Your task to perform on an android device: open sync settings in chrome Image 0: 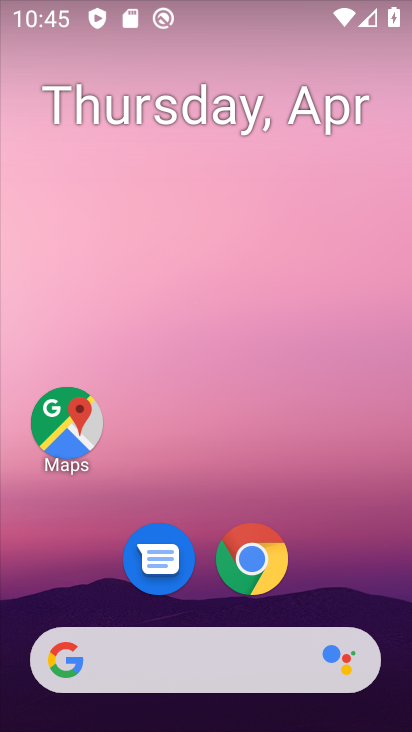
Step 0: drag from (269, 679) to (225, 168)
Your task to perform on an android device: open sync settings in chrome Image 1: 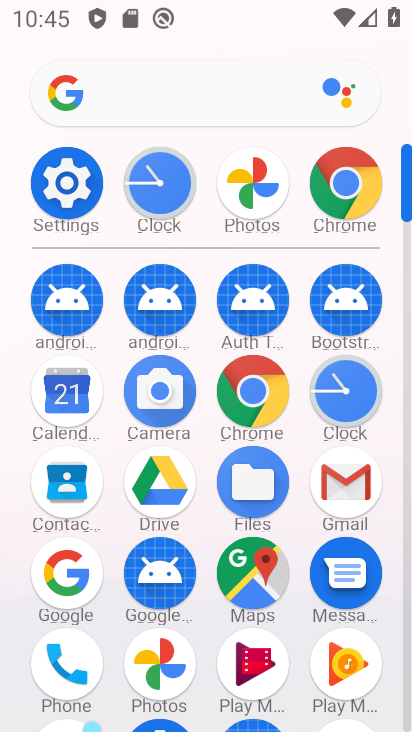
Step 1: click (346, 171)
Your task to perform on an android device: open sync settings in chrome Image 2: 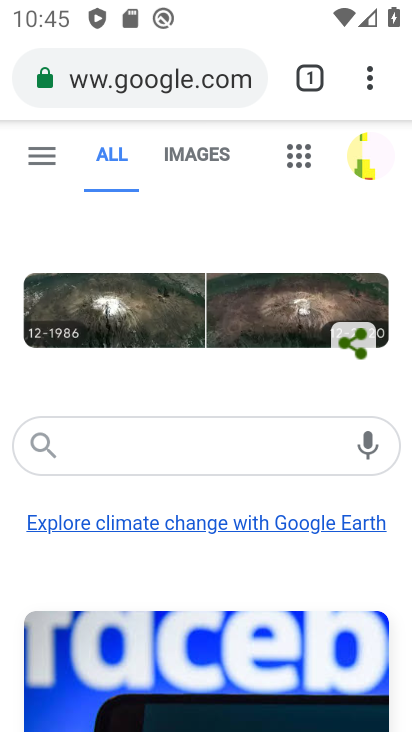
Step 2: click (362, 89)
Your task to perform on an android device: open sync settings in chrome Image 3: 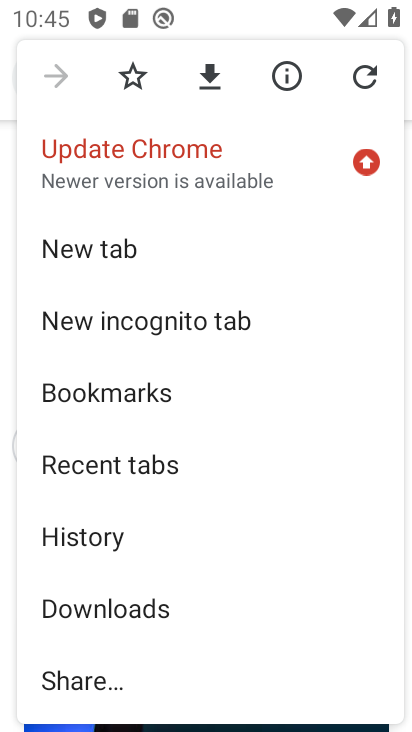
Step 3: drag from (51, 680) to (146, 302)
Your task to perform on an android device: open sync settings in chrome Image 4: 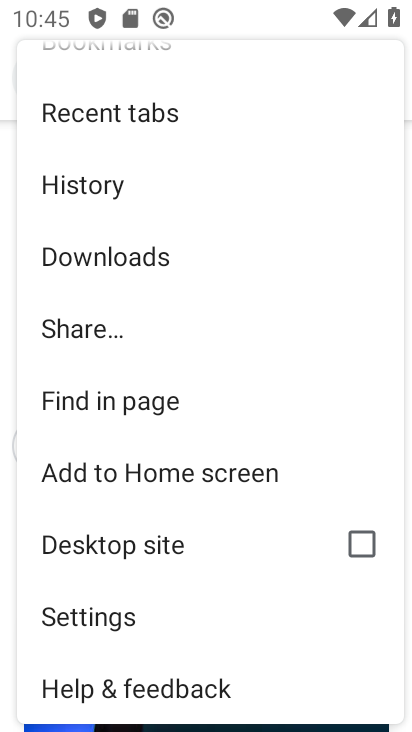
Step 4: click (124, 622)
Your task to perform on an android device: open sync settings in chrome Image 5: 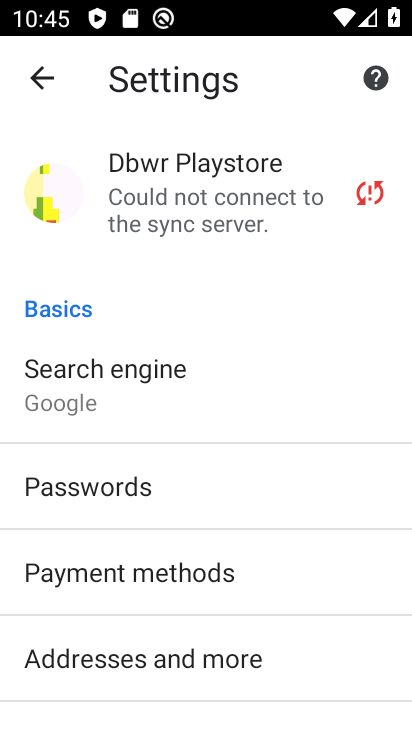
Step 5: drag from (182, 644) to (209, 296)
Your task to perform on an android device: open sync settings in chrome Image 6: 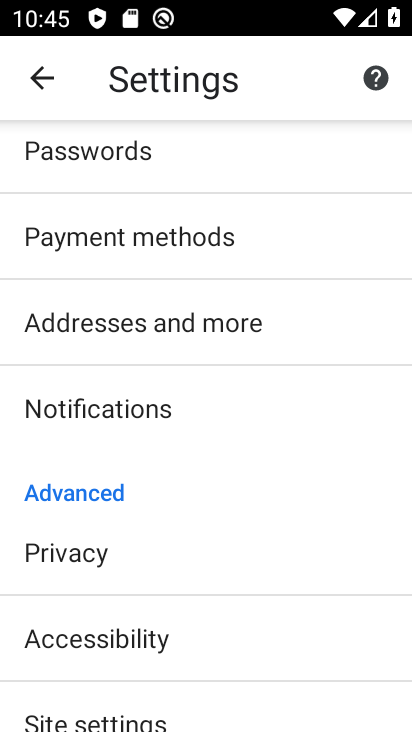
Step 6: drag from (145, 666) to (188, 441)
Your task to perform on an android device: open sync settings in chrome Image 7: 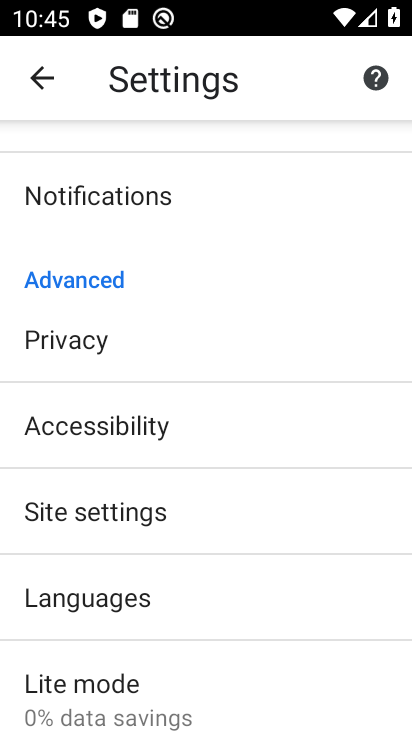
Step 7: click (90, 515)
Your task to perform on an android device: open sync settings in chrome Image 8: 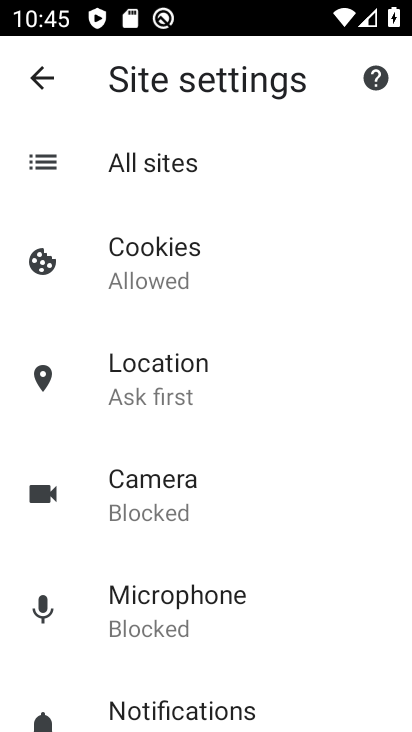
Step 8: drag from (166, 542) to (286, 193)
Your task to perform on an android device: open sync settings in chrome Image 9: 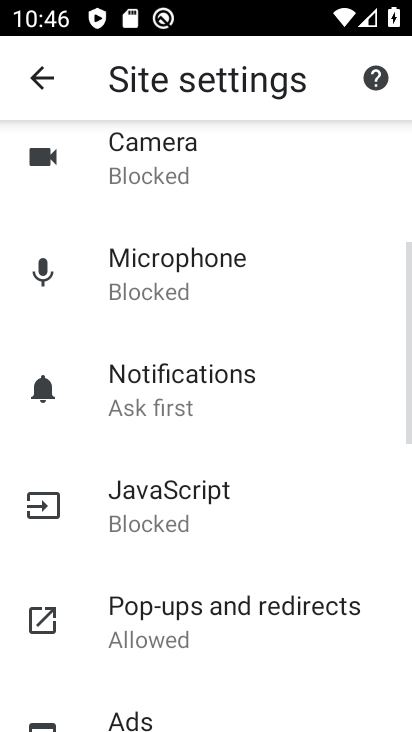
Step 9: drag from (249, 576) to (333, 231)
Your task to perform on an android device: open sync settings in chrome Image 10: 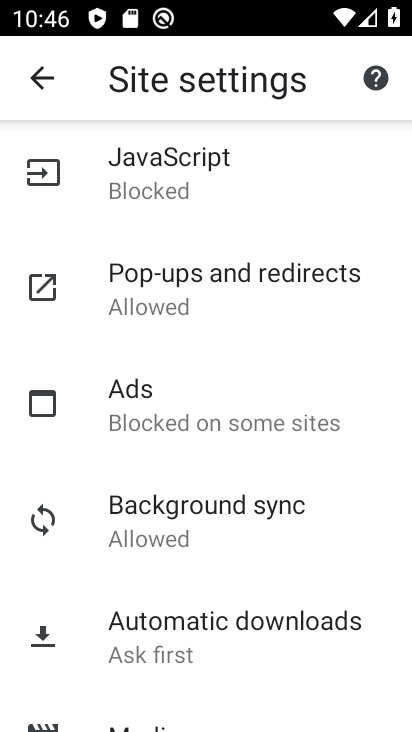
Step 10: click (230, 514)
Your task to perform on an android device: open sync settings in chrome Image 11: 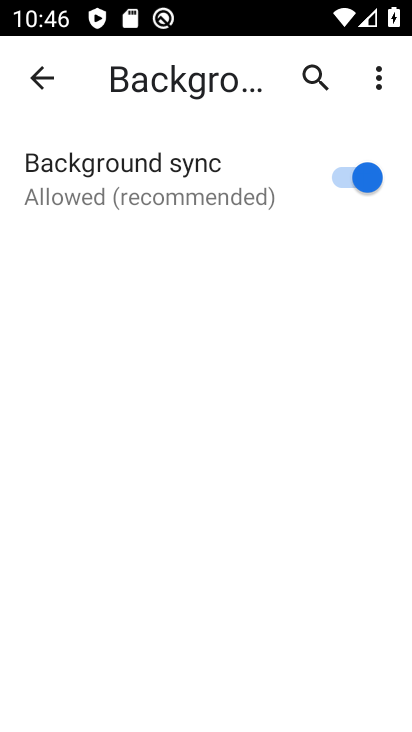
Step 11: click (226, 180)
Your task to perform on an android device: open sync settings in chrome Image 12: 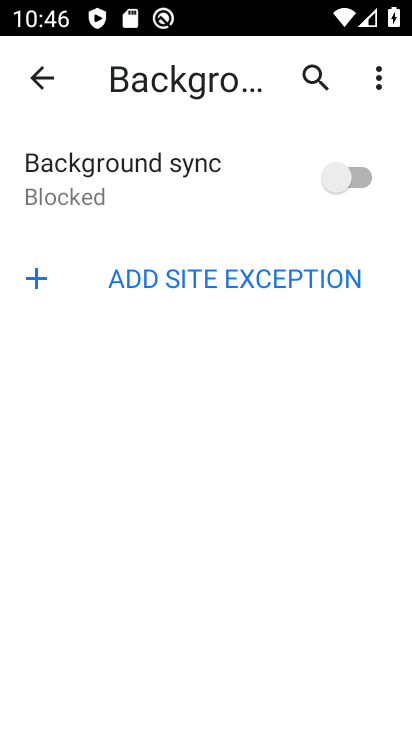
Step 12: click (226, 178)
Your task to perform on an android device: open sync settings in chrome Image 13: 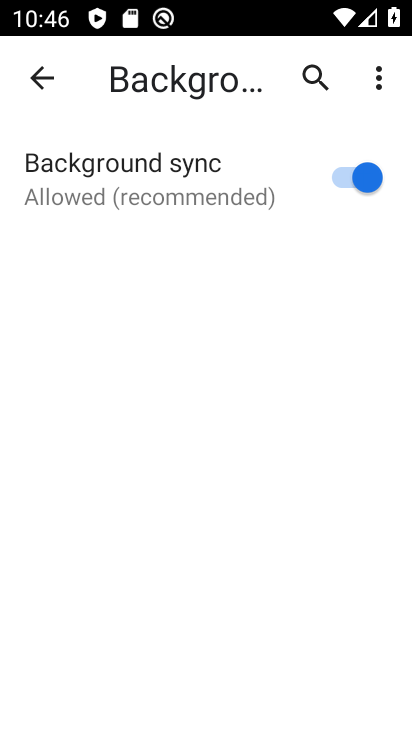
Step 13: task complete